Your task to perform on an android device: Find coffee shops on Maps Image 0: 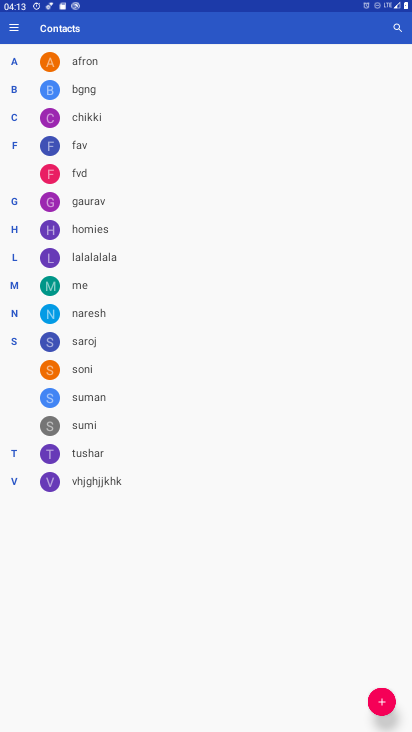
Step 0: press home button
Your task to perform on an android device: Find coffee shops on Maps Image 1: 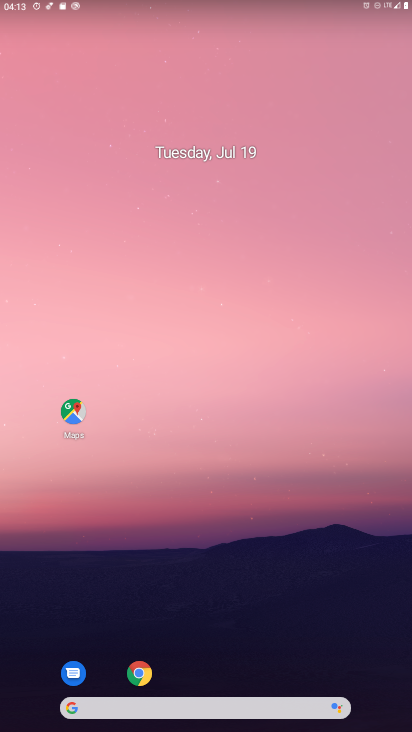
Step 1: click (67, 412)
Your task to perform on an android device: Find coffee shops on Maps Image 2: 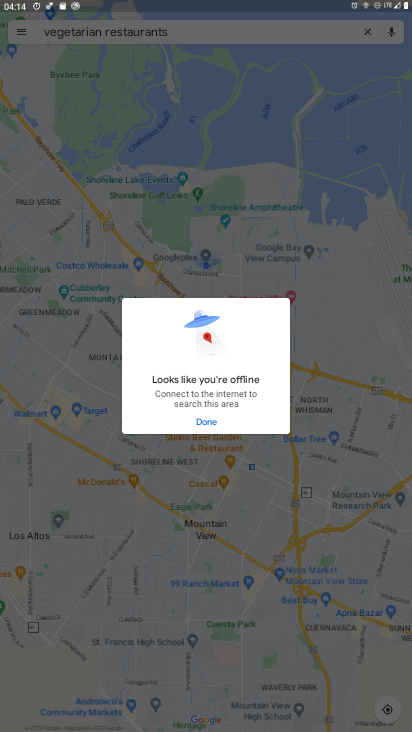
Step 2: click (215, 422)
Your task to perform on an android device: Find coffee shops on Maps Image 3: 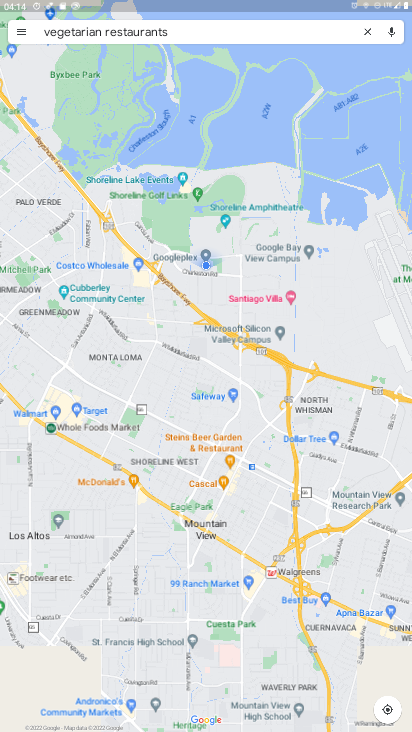
Step 3: click (364, 35)
Your task to perform on an android device: Find coffee shops on Maps Image 4: 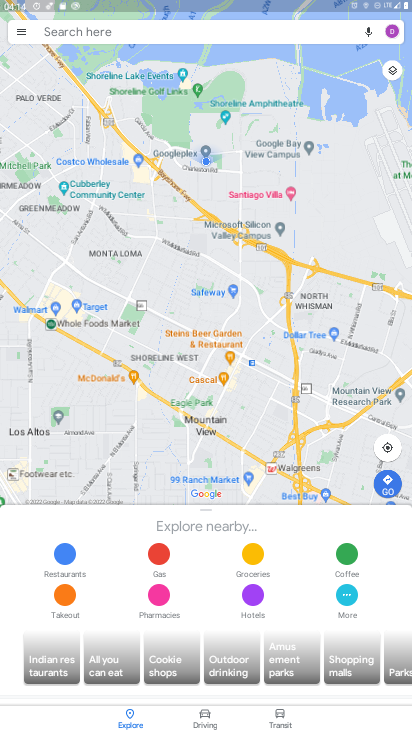
Step 4: click (184, 34)
Your task to perform on an android device: Find coffee shops on Maps Image 5: 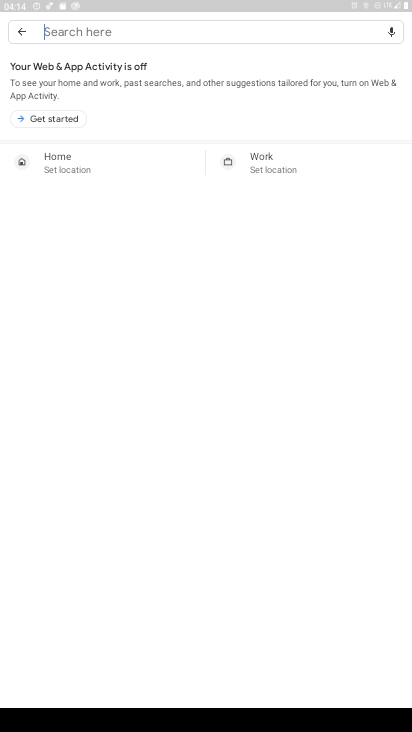
Step 5: type "coffee shops"
Your task to perform on an android device: Find coffee shops on Maps Image 6: 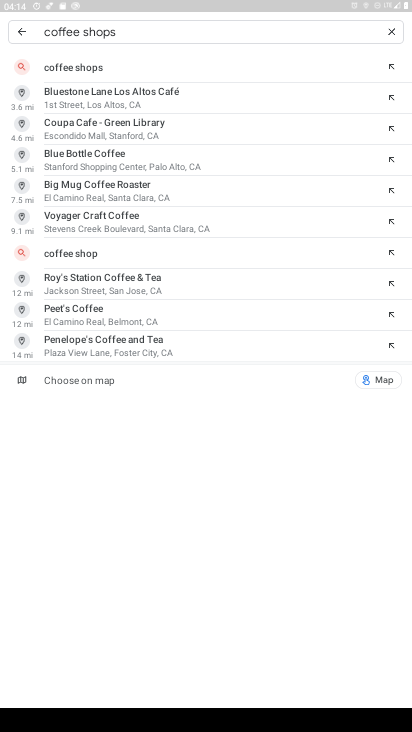
Step 6: click (54, 66)
Your task to perform on an android device: Find coffee shops on Maps Image 7: 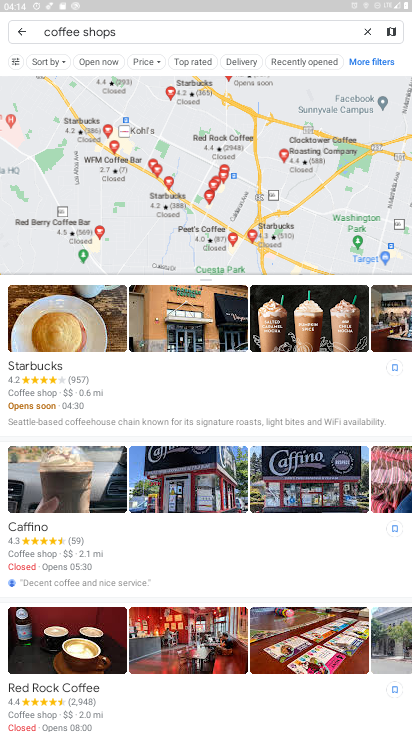
Step 7: task complete